Your task to perform on an android device: What's the news? Image 0: 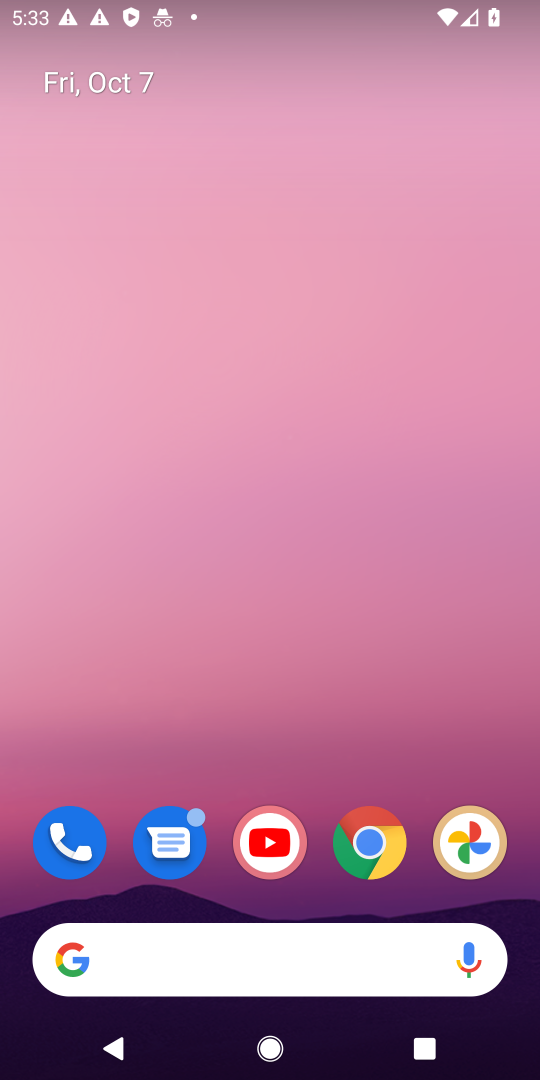
Step 0: click (189, 962)
Your task to perform on an android device: What's the news? Image 1: 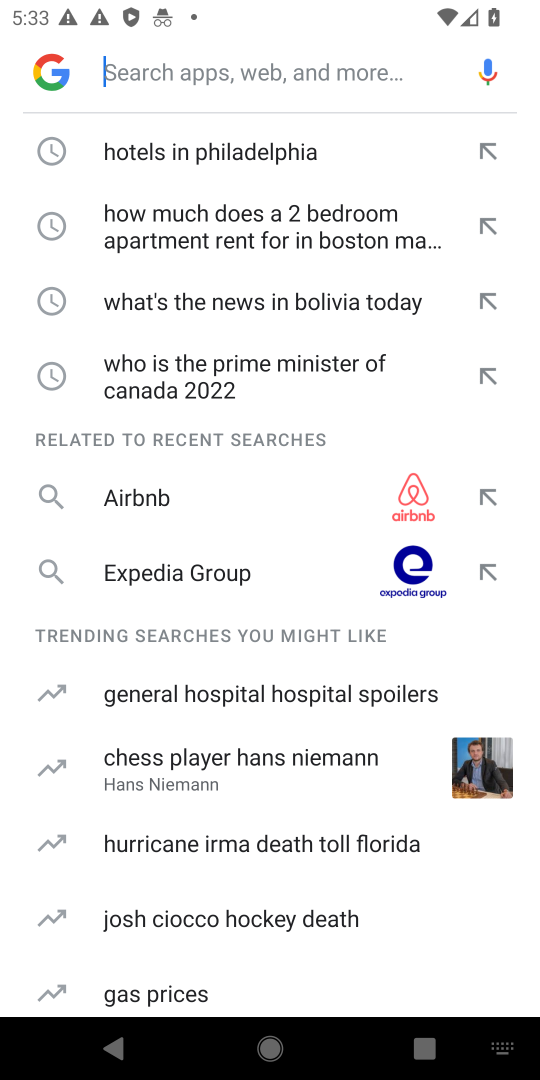
Step 1: click (178, 75)
Your task to perform on an android device: What's the news? Image 2: 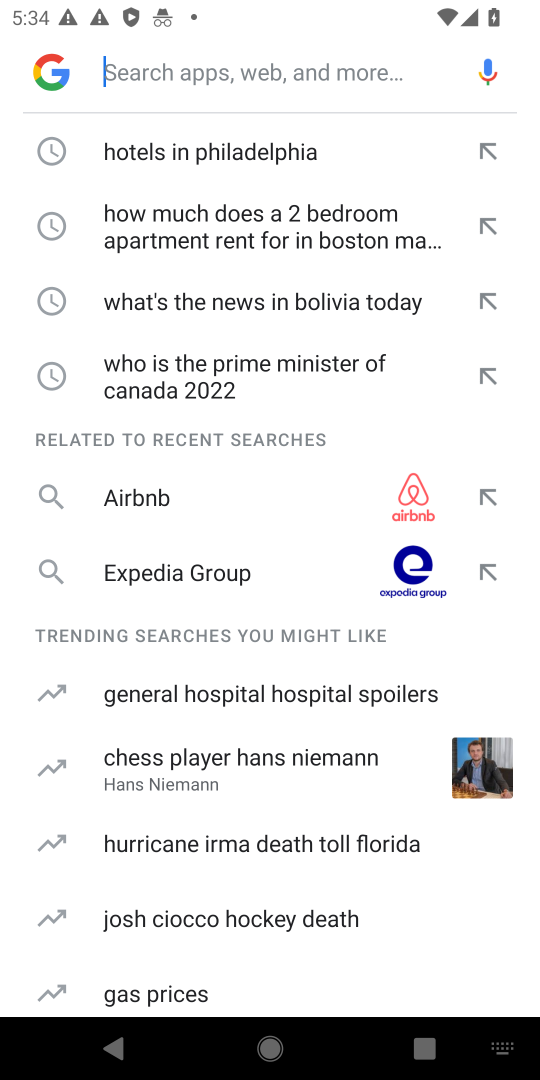
Step 2: type "What's the news"
Your task to perform on an android device: What's the news? Image 3: 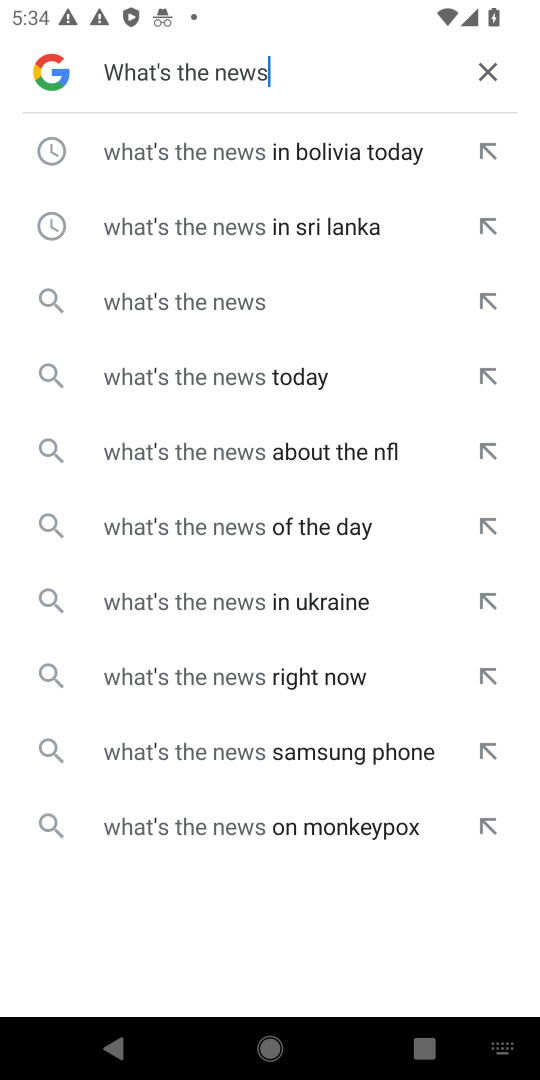
Step 3: click (286, 310)
Your task to perform on an android device: What's the news? Image 4: 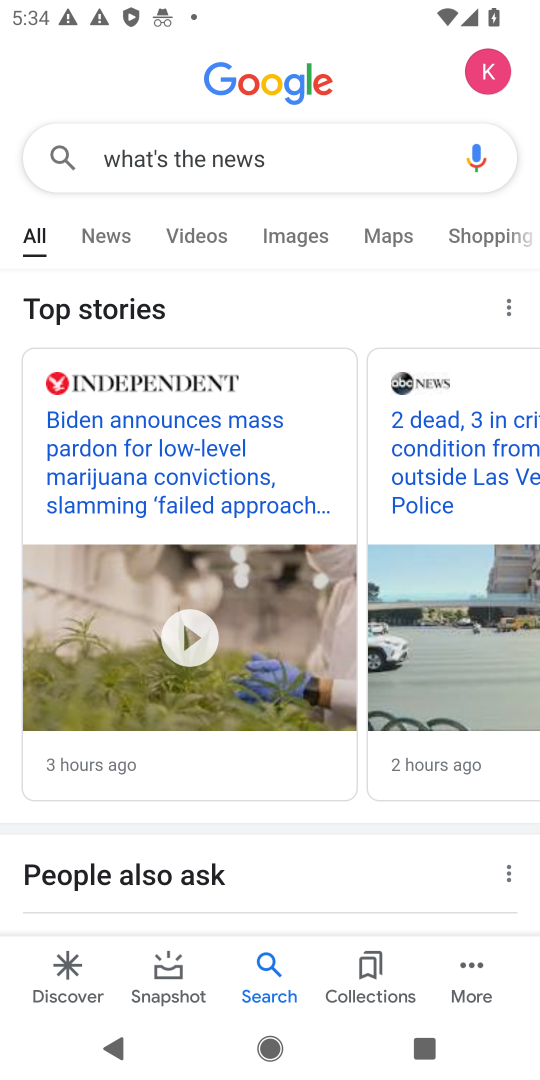
Step 4: task complete